Your task to perform on an android device: turn on showing notifications on the lock screen Image 0: 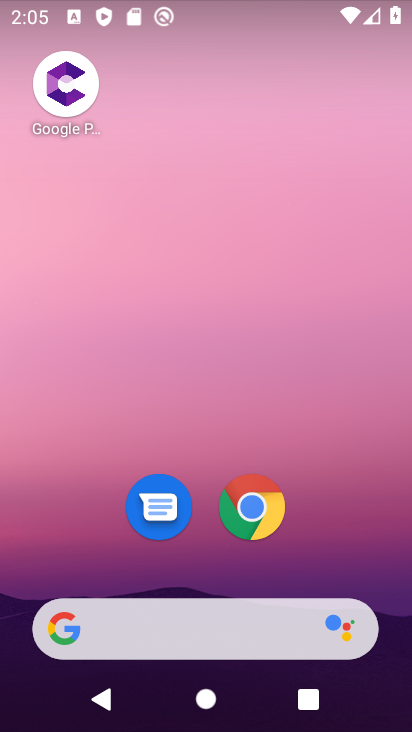
Step 0: drag from (242, 577) to (229, 234)
Your task to perform on an android device: turn on showing notifications on the lock screen Image 1: 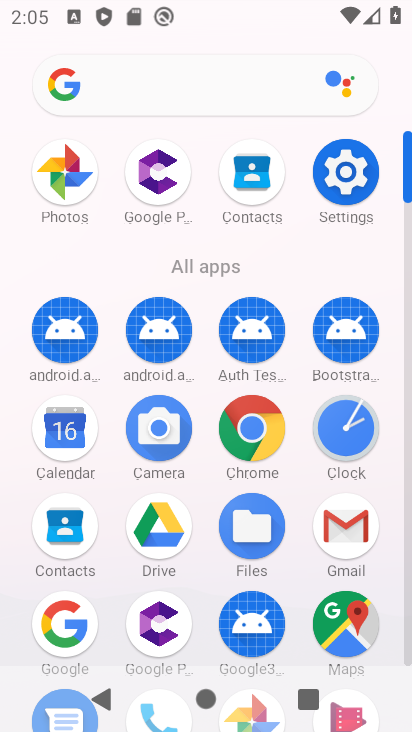
Step 1: click (367, 175)
Your task to perform on an android device: turn on showing notifications on the lock screen Image 2: 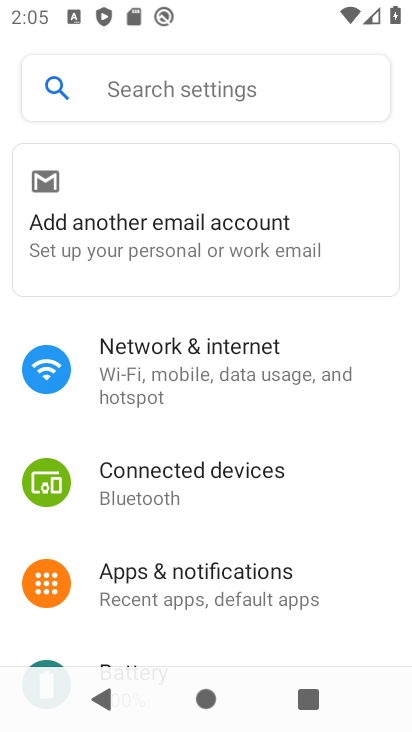
Step 2: drag from (220, 450) to (218, 142)
Your task to perform on an android device: turn on showing notifications on the lock screen Image 3: 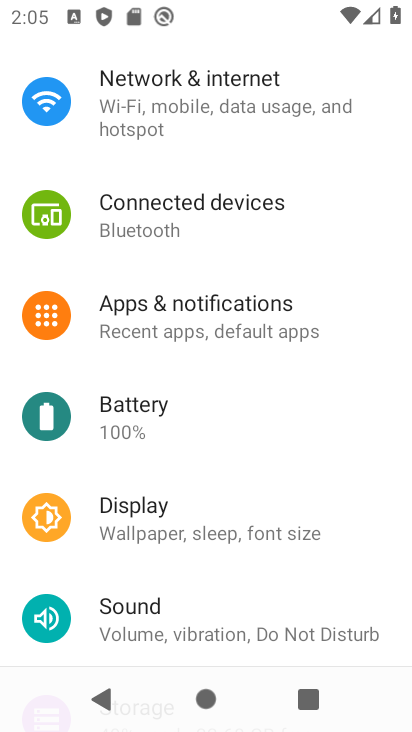
Step 3: click (237, 320)
Your task to perform on an android device: turn on showing notifications on the lock screen Image 4: 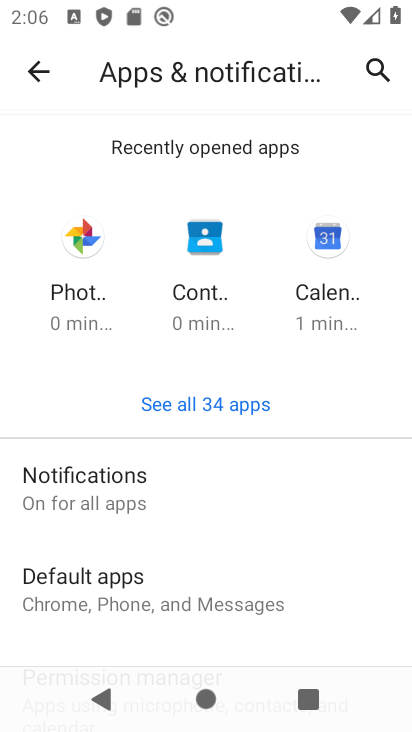
Step 4: click (197, 474)
Your task to perform on an android device: turn on showing notifications on the lock screen Image 5: 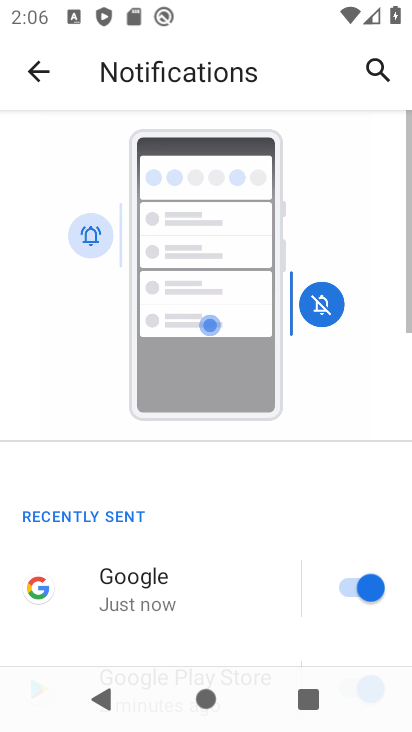
Step 5: drag from (207, 545) to (184, 89)
Your task to perform on an android device: turn on showing notifications on the lock screen Image 6: 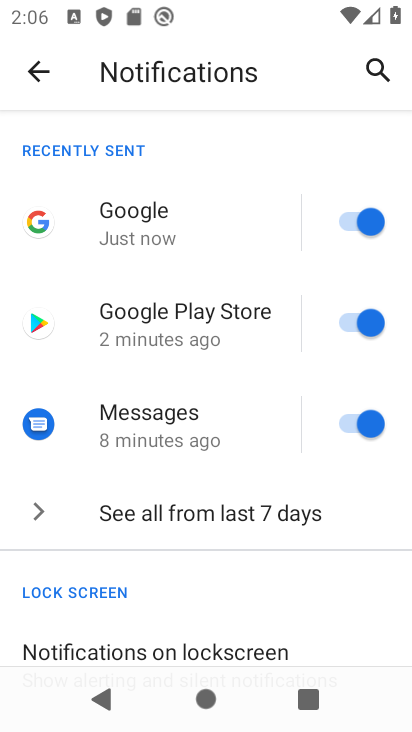
Step 6: click (190, 644)
Your task to perform on an android device: turn on showing notifications on the lock screen Image 7: 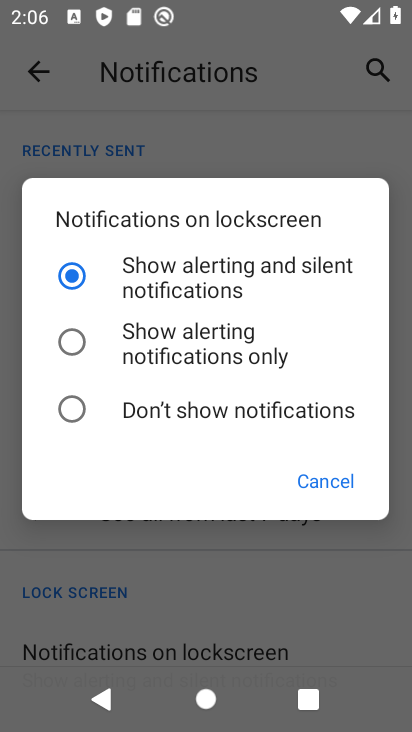
Step 7: click (282, 281)
Your task to perform on an android device: turn on showing notifications on the lock screen Image 8: 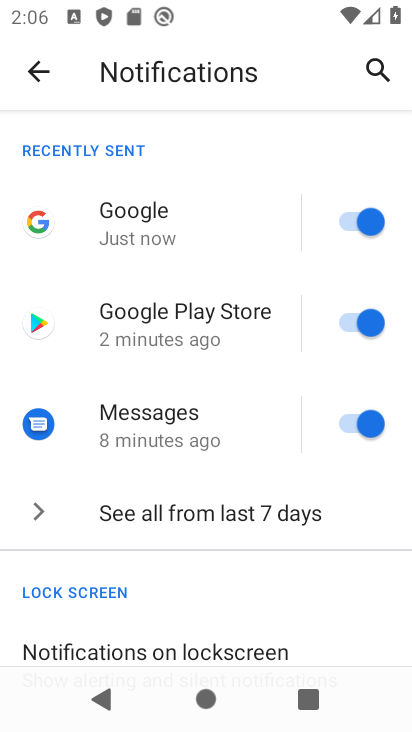
Step 8: task complete